Your task to perform on an android device: Turn on the flashlight Image 0: 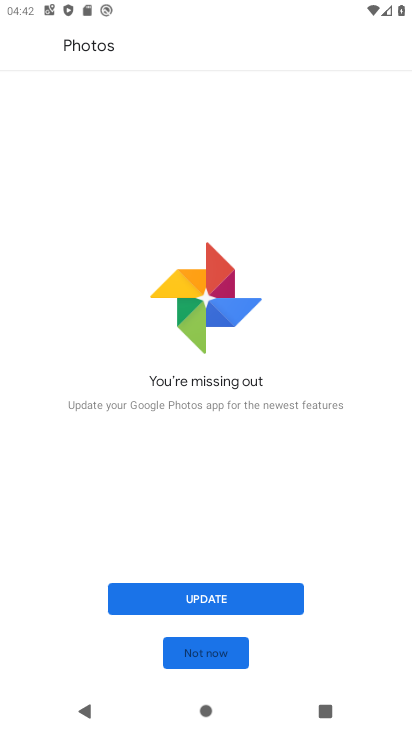
Step 0: press home button
Your task to perform on an android device: Turn on the flashlight Image 1: 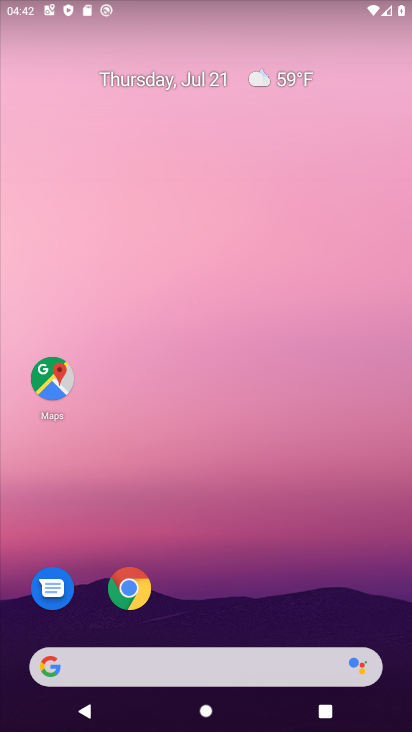
Step 1: drag from (225, 622) to (276, 32)
Your task to perform on an android device: Turn on the flashlight Image 2: 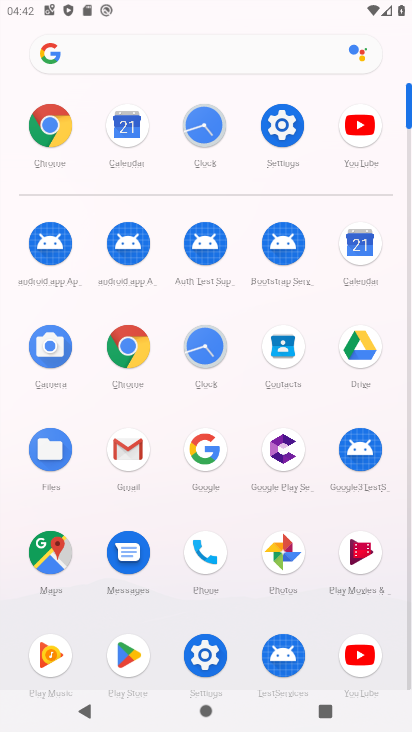
Step 2: click (203, 652)
Your task to perform on an android device: Turn on the flashlight Image 3: 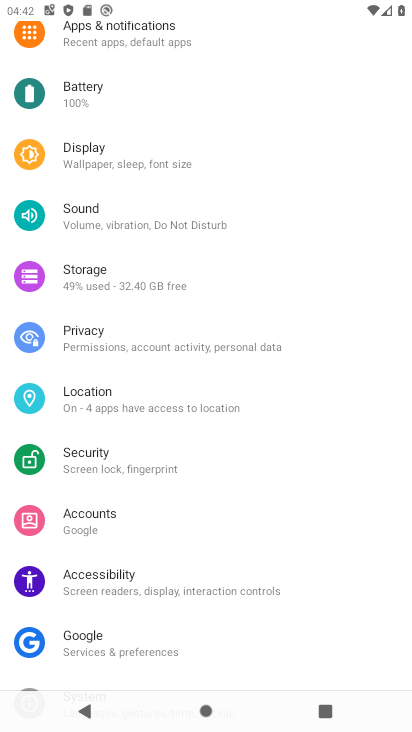
Step 3: drag from (269, 113) to (249, 526)
Your task to perform on an android device: Turn on the flashlight Image 4: 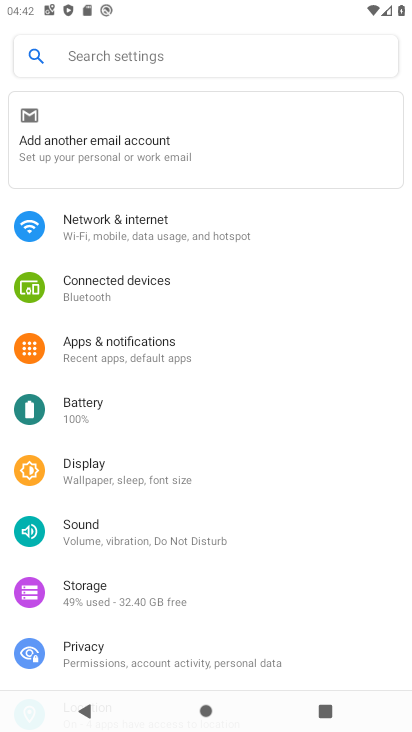
Step 4: click (183, 53)
Your task to perform on an android device: Turn on the flashlight Image 5: 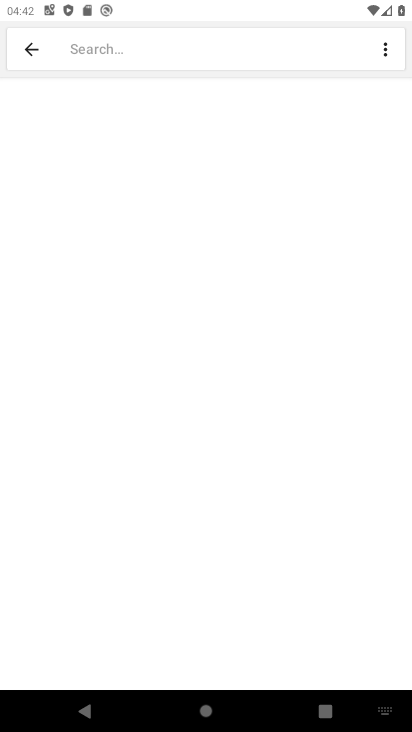
Step 5: type "flashlight"
Your task to perform on an android device: Turn on the flashlight Image 6: 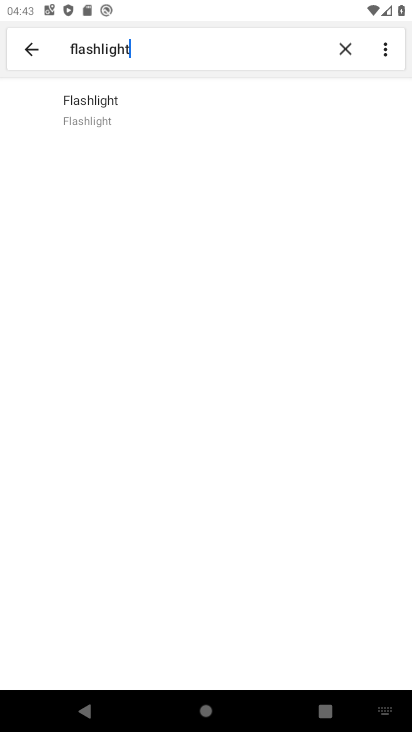
Step 6: click (88, 100)
Your task to perform on an android device: Turn on the flashlight Image 7: 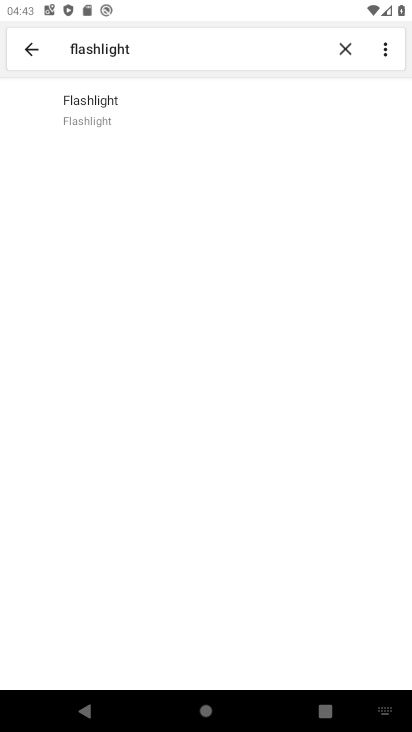
Step 7: task complete